Your task to perform on an android device: Go to sound settings Image 0: 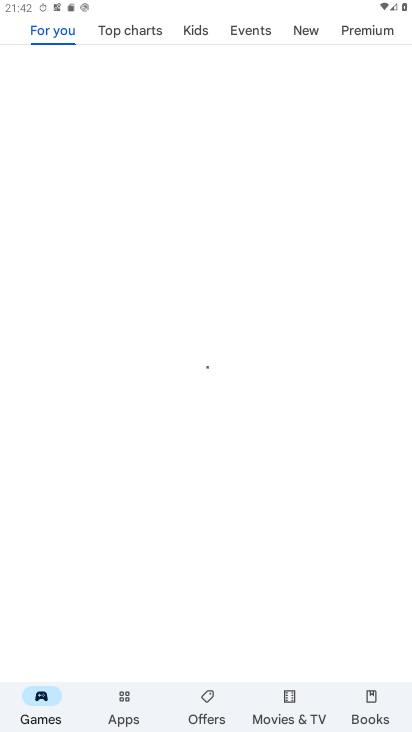
Step 0: press home button
Your task to perform on an android device: Go to sound settings Image 1: 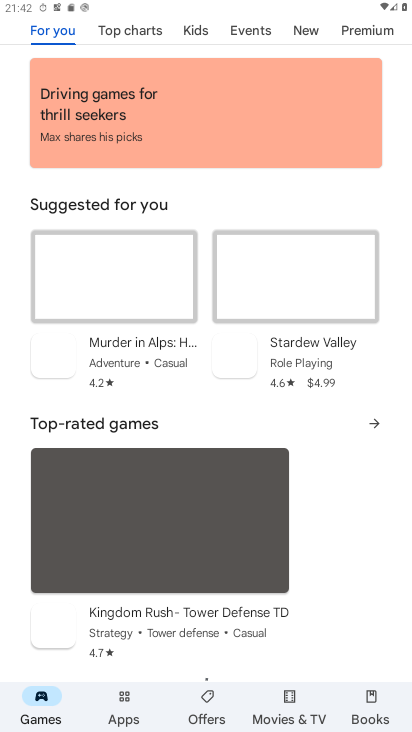
Step 1: press home button
Your task to perform on an android device: Go to sound settings Image 2: 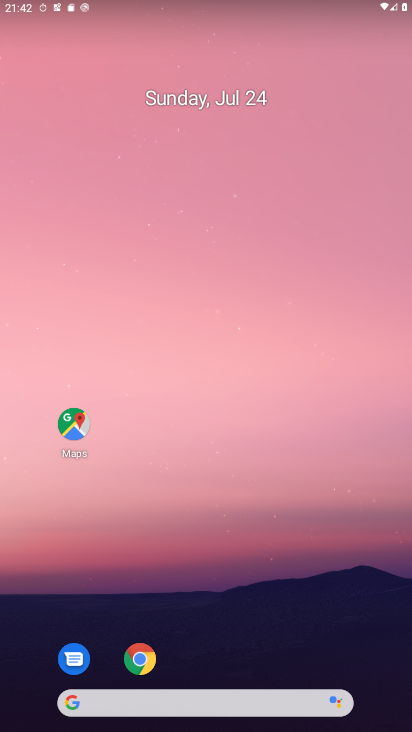
Step 2: drag from (211, 726) to (211, 118)
Your task to perform on an android device: Go to sound settings Image 3: 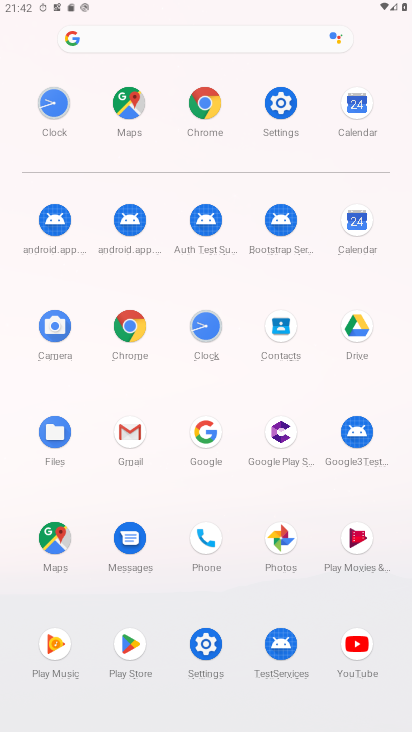
Step 3: click (283, 101)
Your task to perform on an android device: Go to sound settings Image 4: 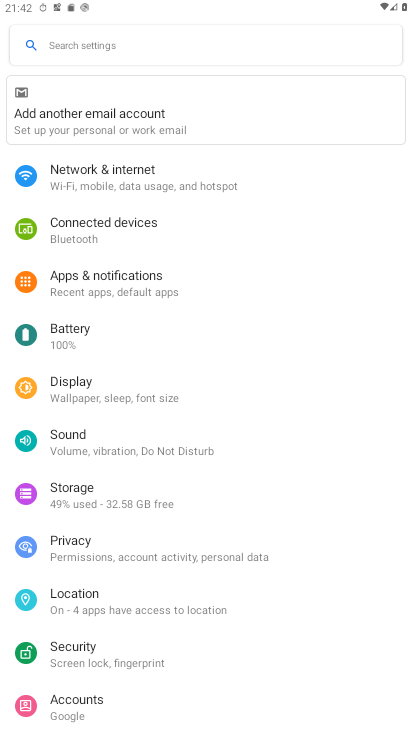
Step 4: click (77, 446)
Your task to perform on an android device: Go to sound settings Image 5: 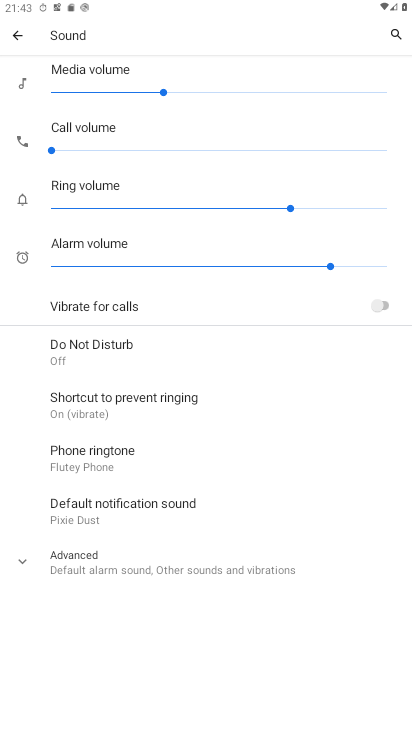
Step 5: task complete